Your task to perform on an android device: open a bookmark in the chrome app Image 0: 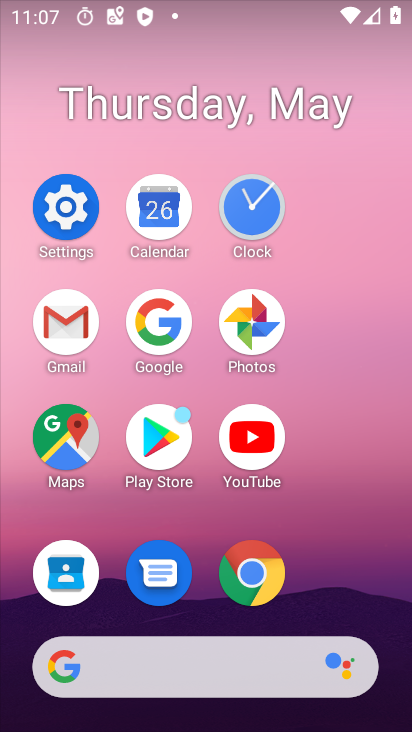
Step 0: click (258, 569)
Your task to perform on an android device: open a bookmark in the chrome app Image 1: 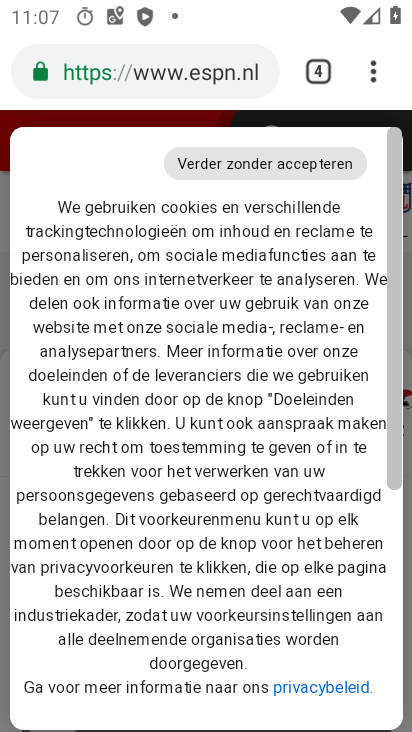
Step 1: click (369, 54)
Your task to perform on an android device: open a bookmark in the chrome app Image 2: 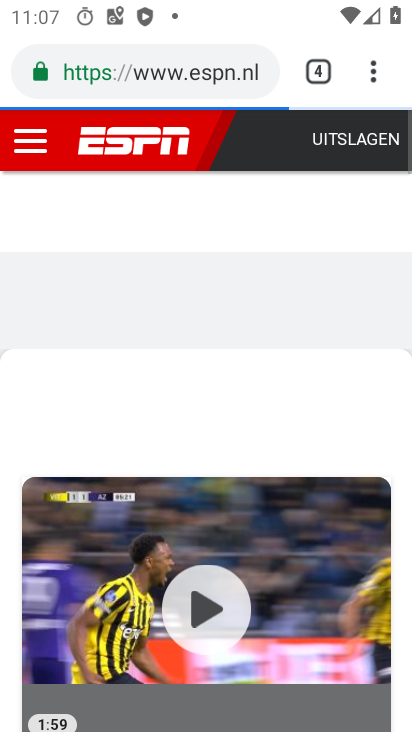
Step 2: click (376, 69)
Your task to perform on an android device: open a bookmark in the chrome app Image 3: 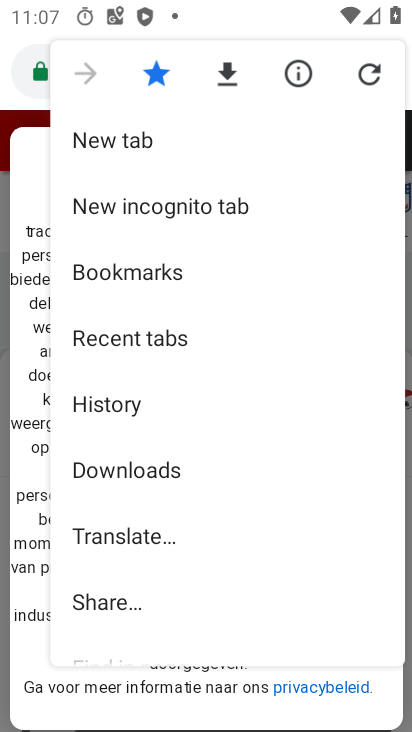
Step 3: click (226, 273)
Your task to perform on an android device: open a bookmark in the chrome app Image 4: 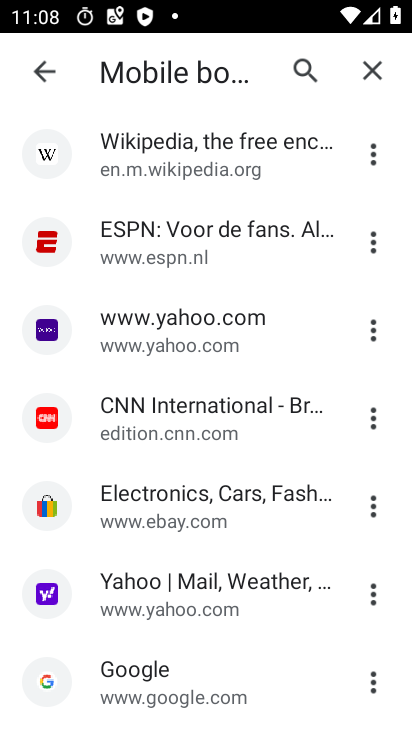
Step 4: task complete